Your task to perform on an android device: Search for sushi restaurants on Maps Image 0: 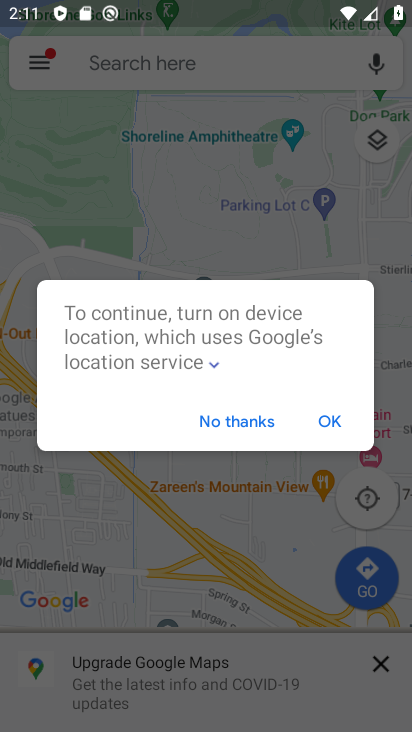
Step 0: press home button
Your task to perform on an android device: Search for sushi restaurants on Maps Image 1: 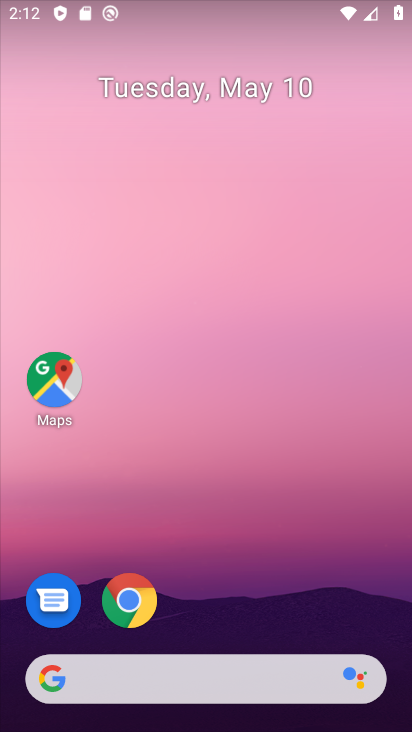
Step 1: drag from (205, 638) to (190, 187)
Your task to perform on an android device: Search for sushi restaurants on Maps Image 2: 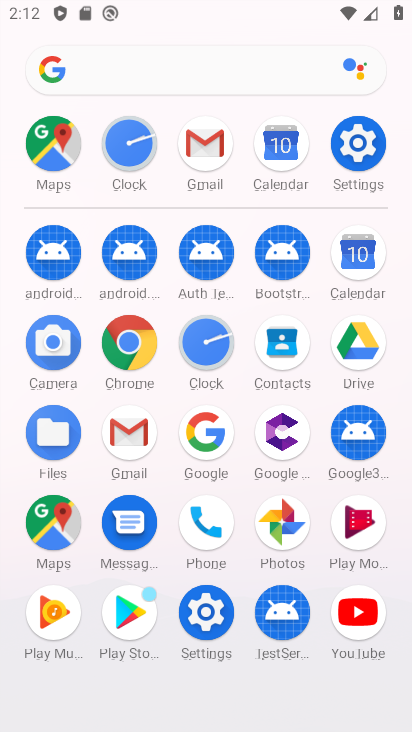
Step 2: click (52, 172)
Your task to perform on an android device: Search for sushi restaurants on Maps Image 3: 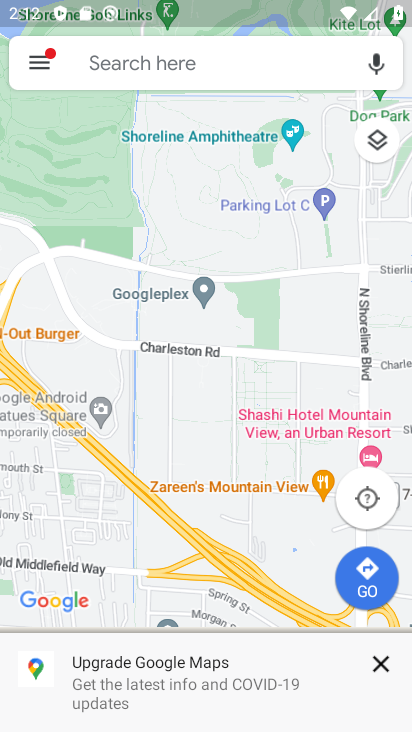
Step 3: click (148, 78)
Your task to perform on an android device: Search for sushi restaurants on Maps Image 4: 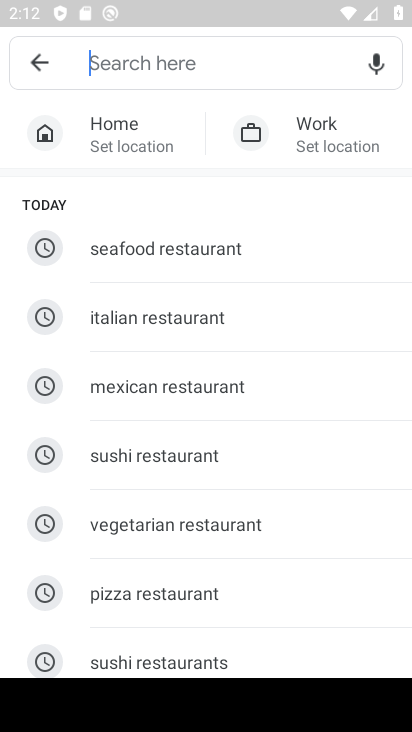
Step 4: click (185, 456)
Your task to perform on an android device: Search for sushi restaurants on Maps Image 5: 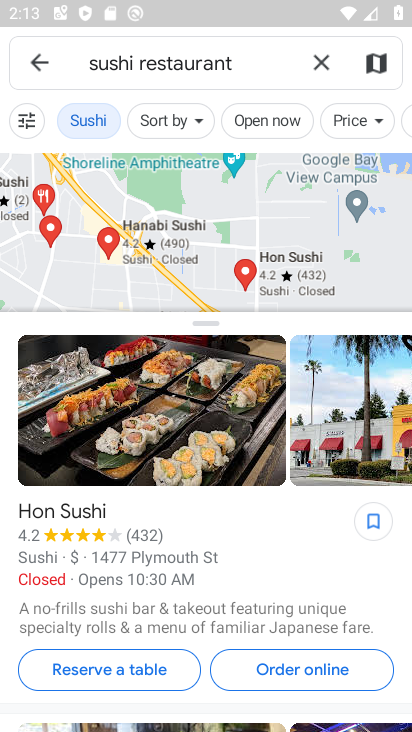
Step 5: task complete